Your task to perform on an android device: turn off priority inbox in the gmail app Image 0: 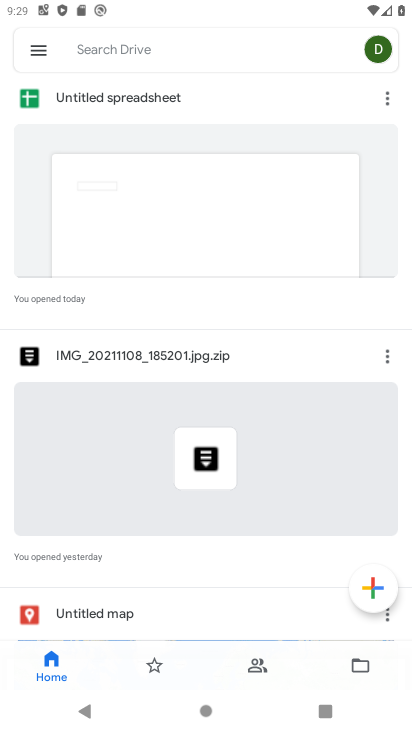
Step 0: press home button
Your task to perform on an android device: turn off priority inbox in the gmail app Image 1: 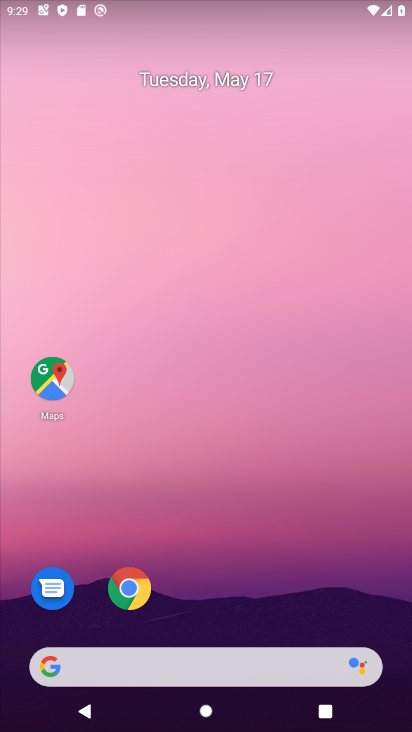
Step 1: drag from (245, 636) to (180, 46)
Your task to perform on an android device: turn off priority inbox in the gmail app Image 2: 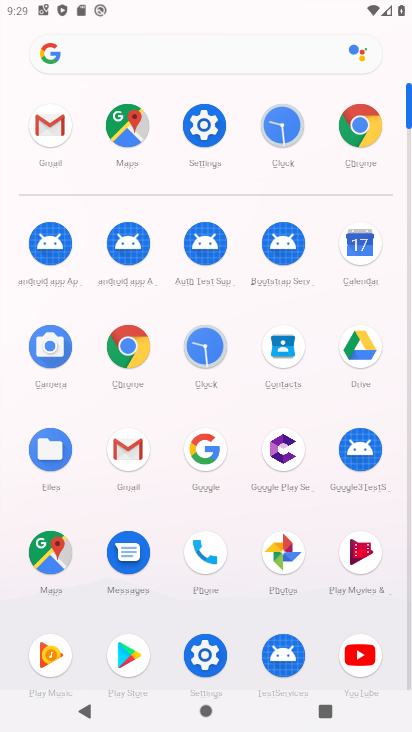
Step 2: click (131, 451)
Your task to perform on an android device: turn off priority inbox in the gmail app Image 3: 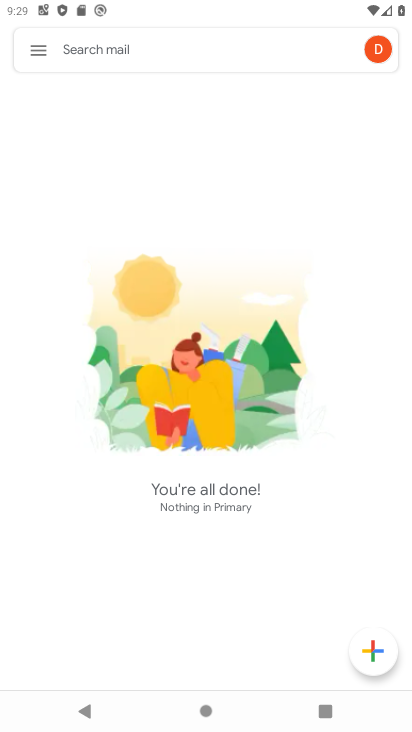
Step 3: click (41, 60)
Your task to perform on an android device: turn off priority inbox in the gmail app Image 4: 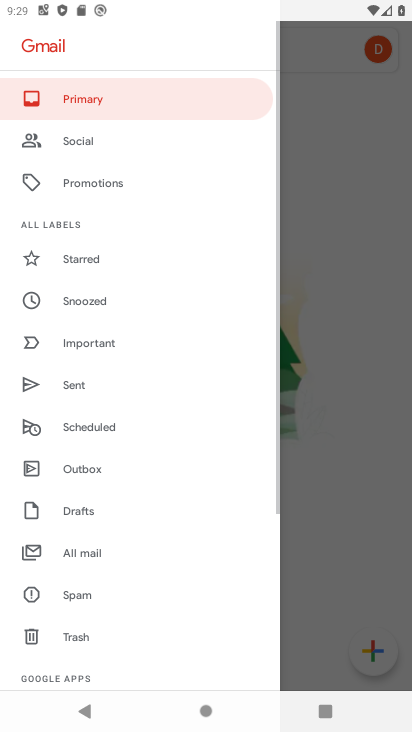
Step 4: drag from (184, 626) to (151, 118)
Your task to perform on an android device: turn off priority inbox in the gmail app Image 5: 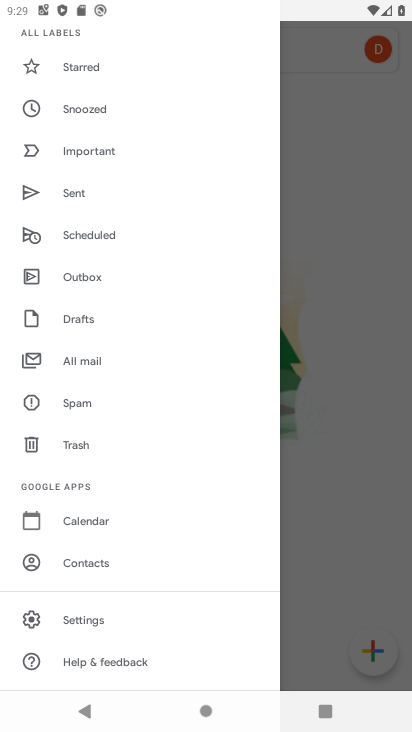
Step 5: click (91, 633)
Your task to perform on an android device: turn off priority inbox in the gmail app Image 6: 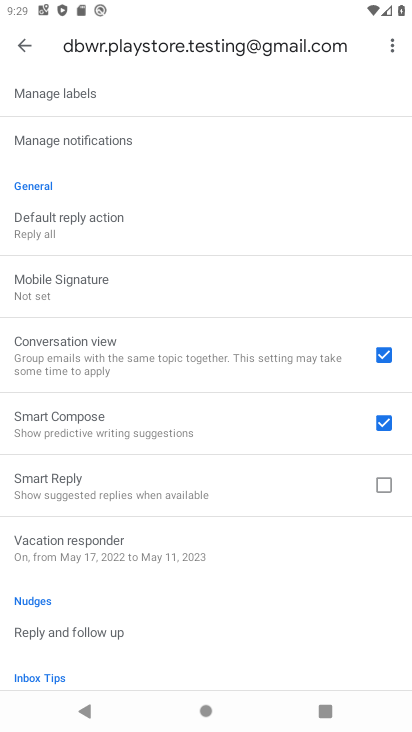
Step 6: drag from (135, 613) to (128, 128)
Your task to perform on an android device: turn off priority inbox in the gmail app Image 7: 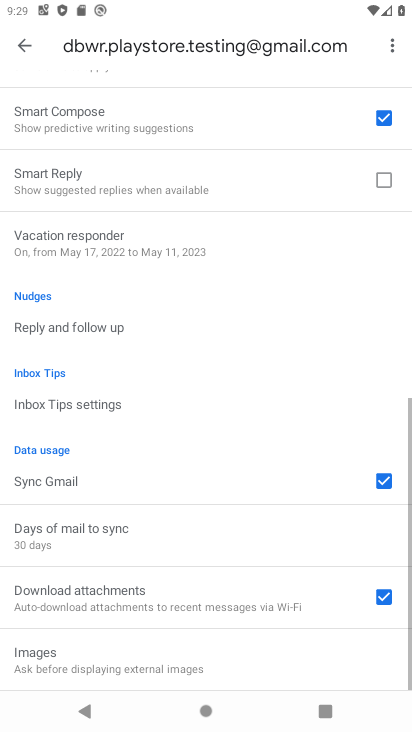
Step 7: drag from (128, 128) to (163, 718)
Your task to perform on an android device: turn off priority inbox in the gmail app Image 8: 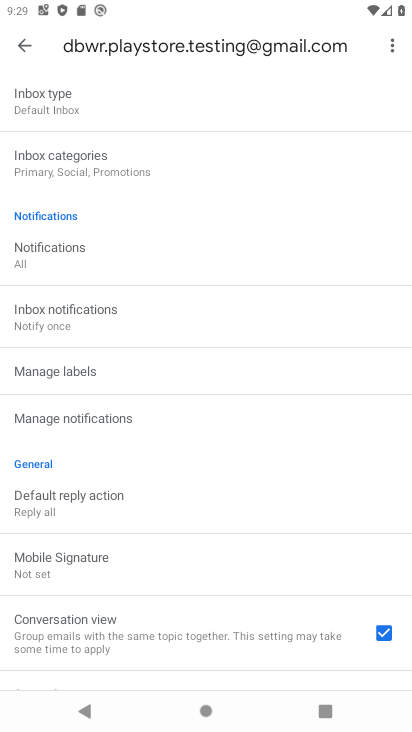
Step 8: click (79, 170)
Your task to perform on an android device: turn off priority inbox in the gmail app Image 9: 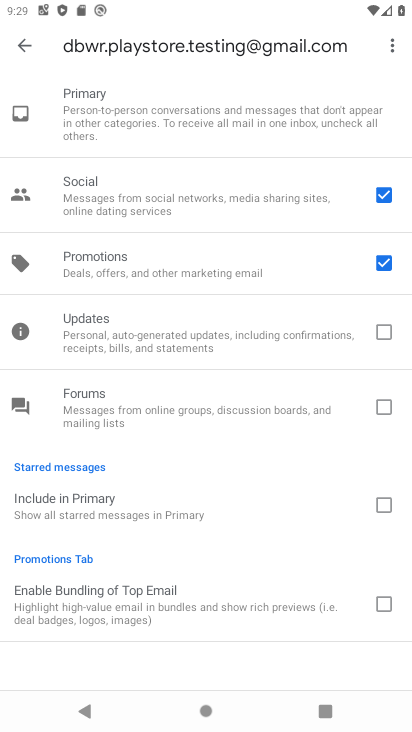
Step 9: click (22, 45)
Your task to perform on an android device: turn off priority inbox in the gmail app Image 10: 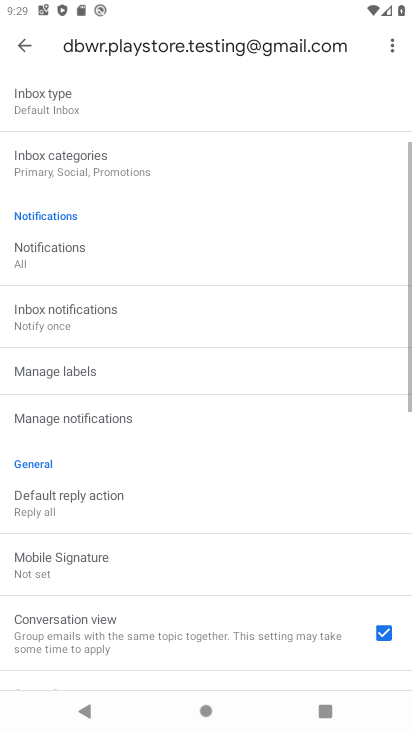
Step 10: drag from (91, 166) to (82, 715)
Your task to perform on an android device: turn off priority inbox in the gmail app Image 11: 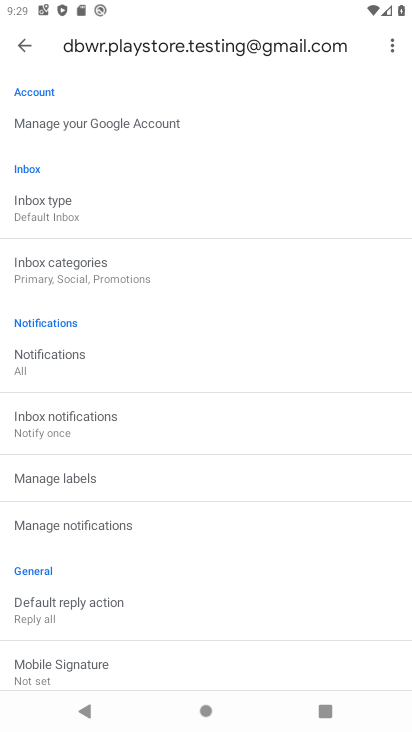
Step 11: click (38, 216)
Your task to perform on an android device: turn off priority inbox in the gmail app Image 12: 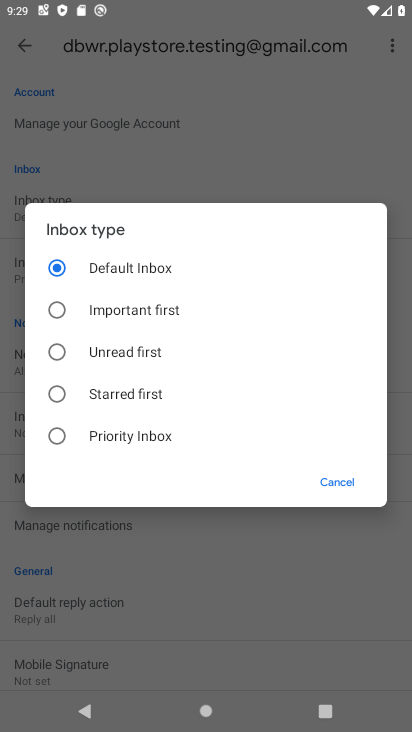
Step 12: task complete